Your task to perform on an android device: change the clock style Image 0: 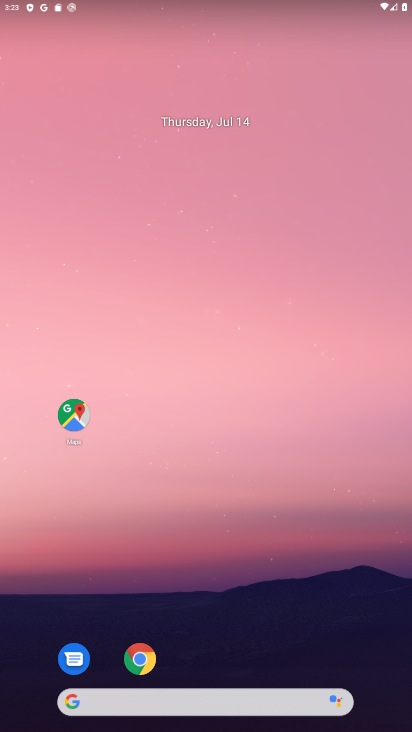
Step 0: drag from (342, 630) to (359, 178)
Your task to perform on an android device: change the clock style Image 1: 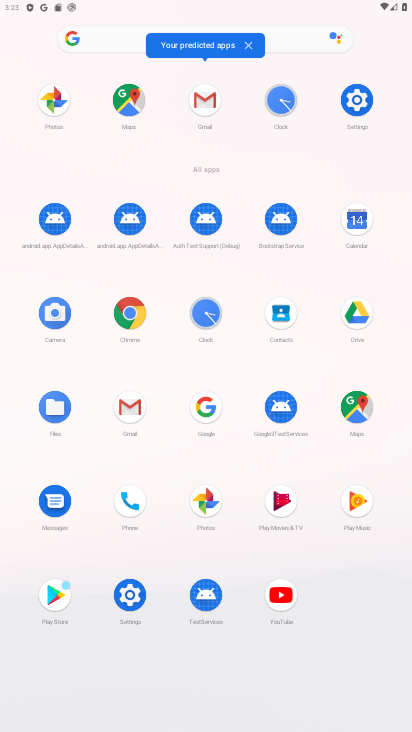
Step 1: click (216, 319)
Your task to perform on an android device: change the clock style Image 2: 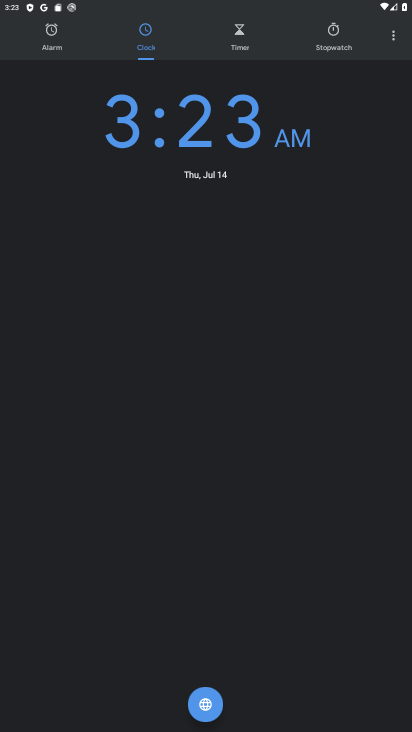
Step 2: click (389, 31)
Your task to perform on an android device: change the clock style Image 3: 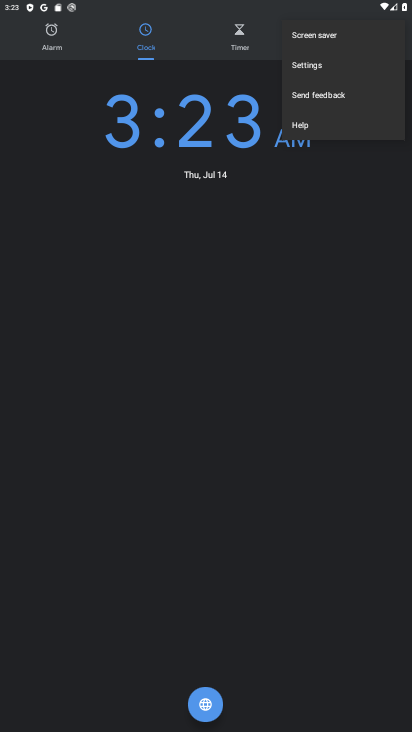
Step 3: click (321, 69)
Your task to perform on an android device: change the clock style Image 4: 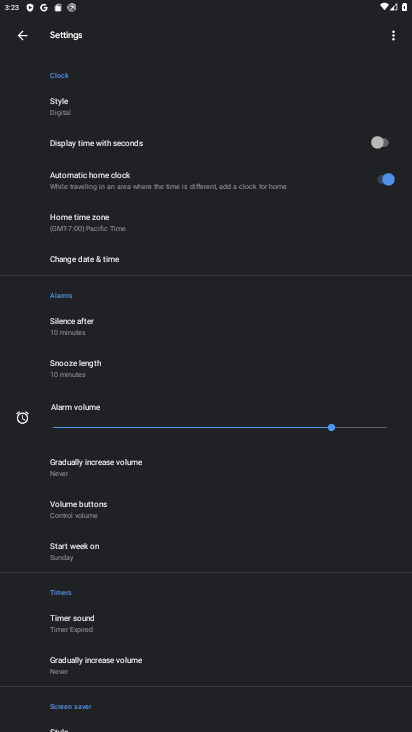
Step 4: drag from (289, 485) to (285, 381)
Your task to perform on an android device: change the clock style Image 5: 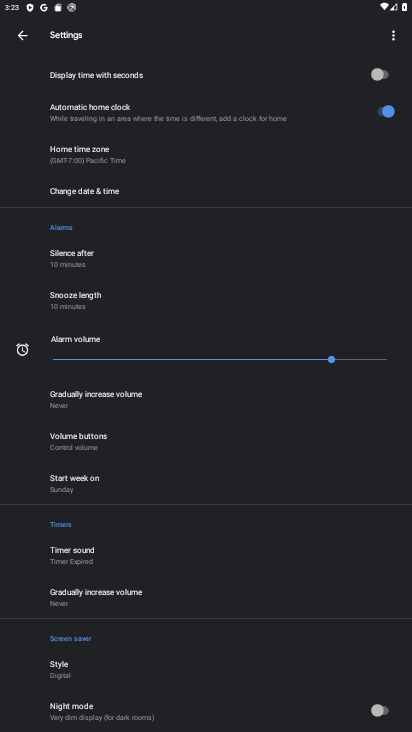
Step 5: drag from (285, 265) to (283, 424)
Your task to perform on an android device: change the clock style Image 6: 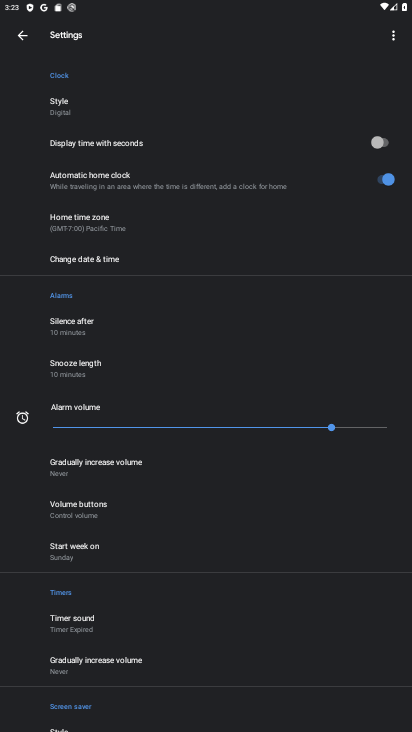
Step 6: click (86, 112)
Your task to perform on an android device: change the clock style Image 7: 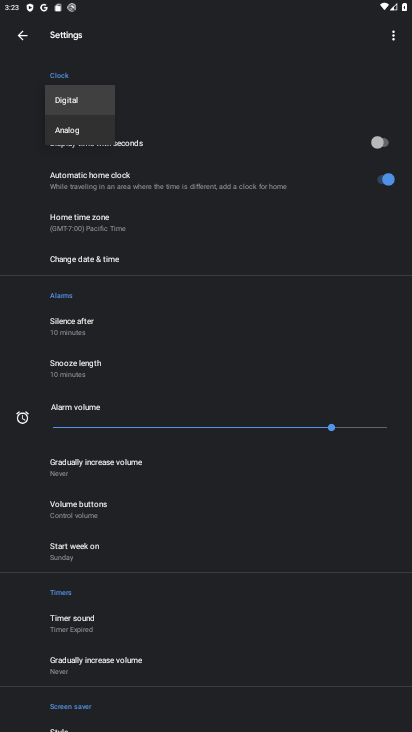
Step 7: click (85, 130)
Your task to perform on an android device: change the clock style Image 8: 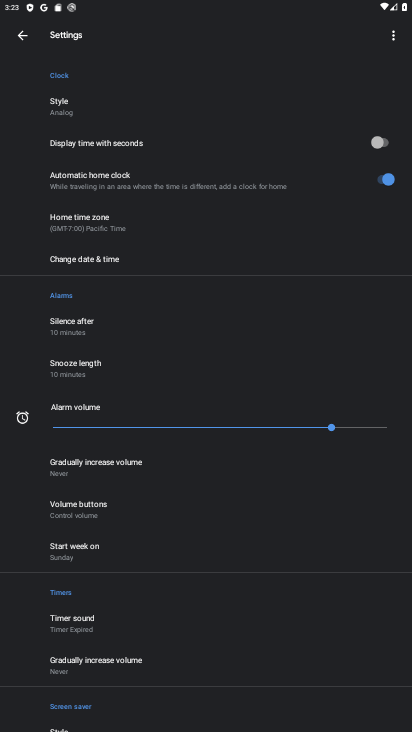
Step 8: task complete